Your task to perform on an android device: toggle wifi Image 0: 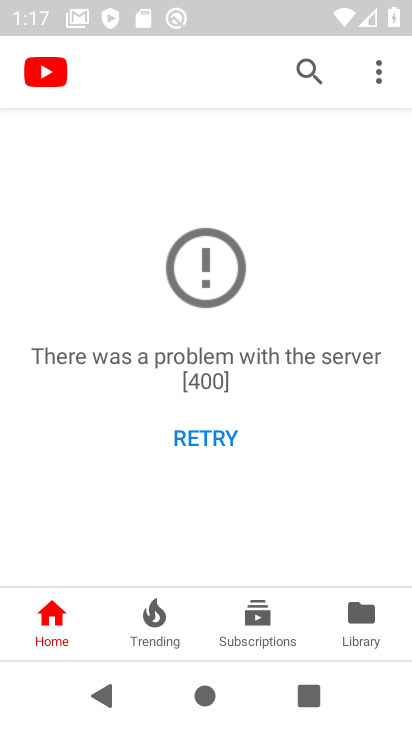
Step 0: press home button
Your task to perform on an android device: toggle wifi Image 1: 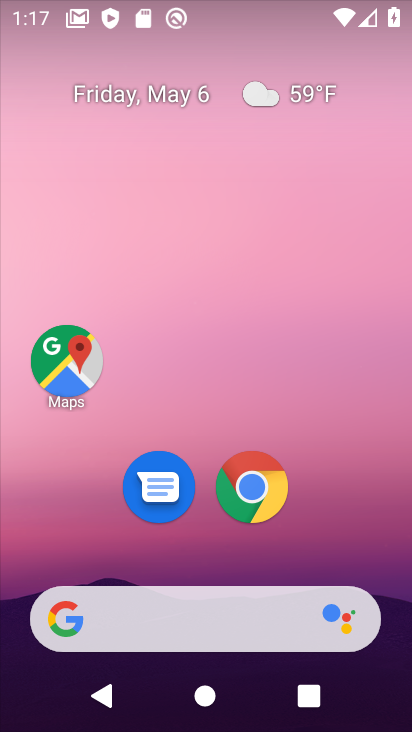
Step 1: drag from (213, 546) to (213, 153)
Your task to perform on an android device: toggle wifi Image 2: 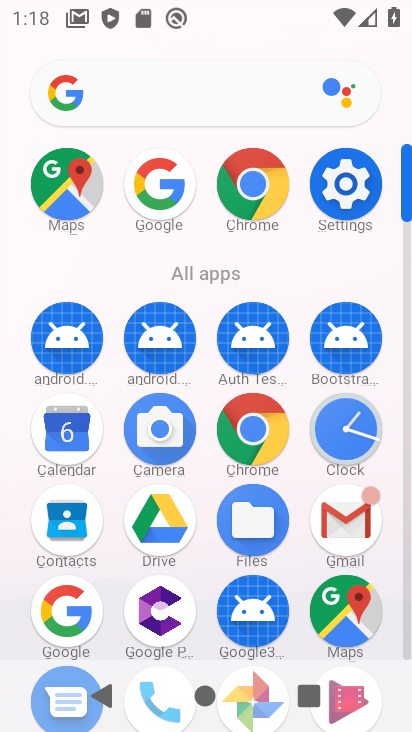
Step 2: click (357, 201)
Your task to perform on an android device: toggle wifi Image 3: 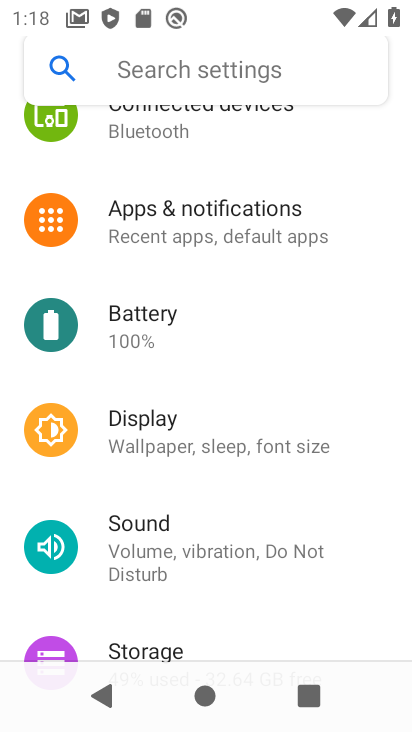
Step 3: drag from (211, 254) to (219, 485)
Your task to perform on an android device: toggle wifi Image 4: 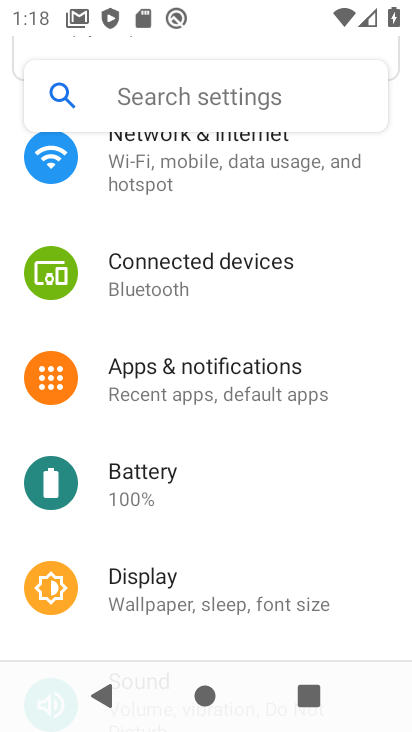
Step 4: drag from (188, 301) to (234, 667)
Your task to perform on an android device: toggle wifi Image 5: 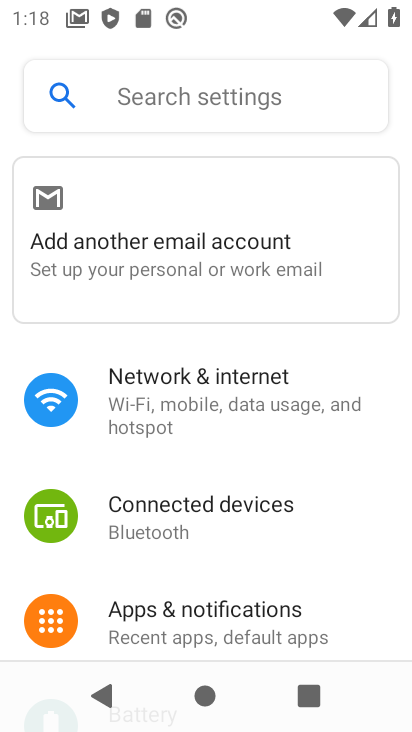
Step 5: click (200, 421)
Your task to perform on an android device: toggle wifi Image 6: 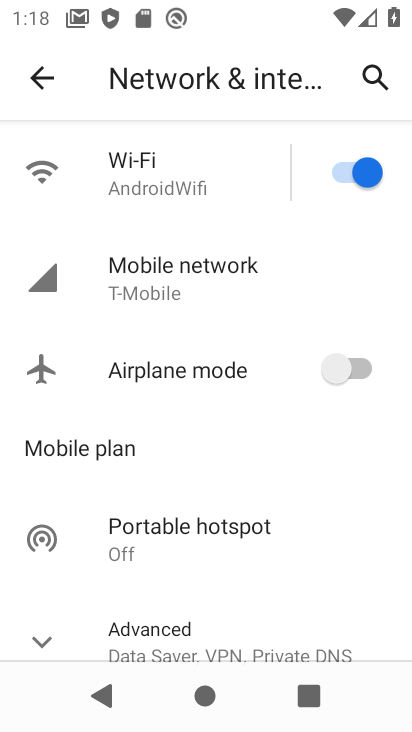
Step 6: click (340, 170)
Your task to perform on an android device: toggle wifi Image 7: 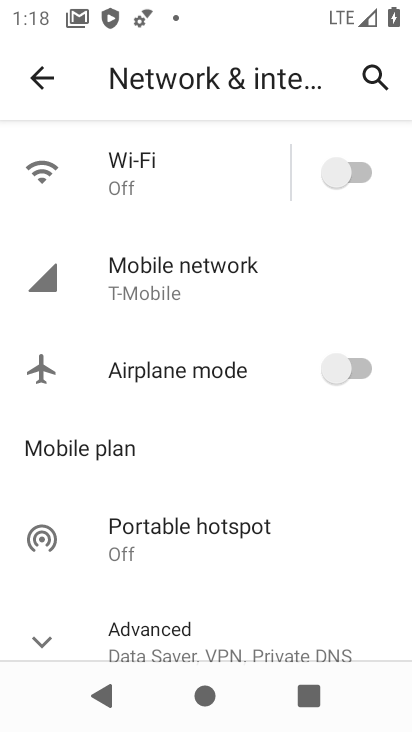
Step 7: task complete